Your task to perform on an android device: Add "sony triple a" to the cart on newegg.com Image 0: 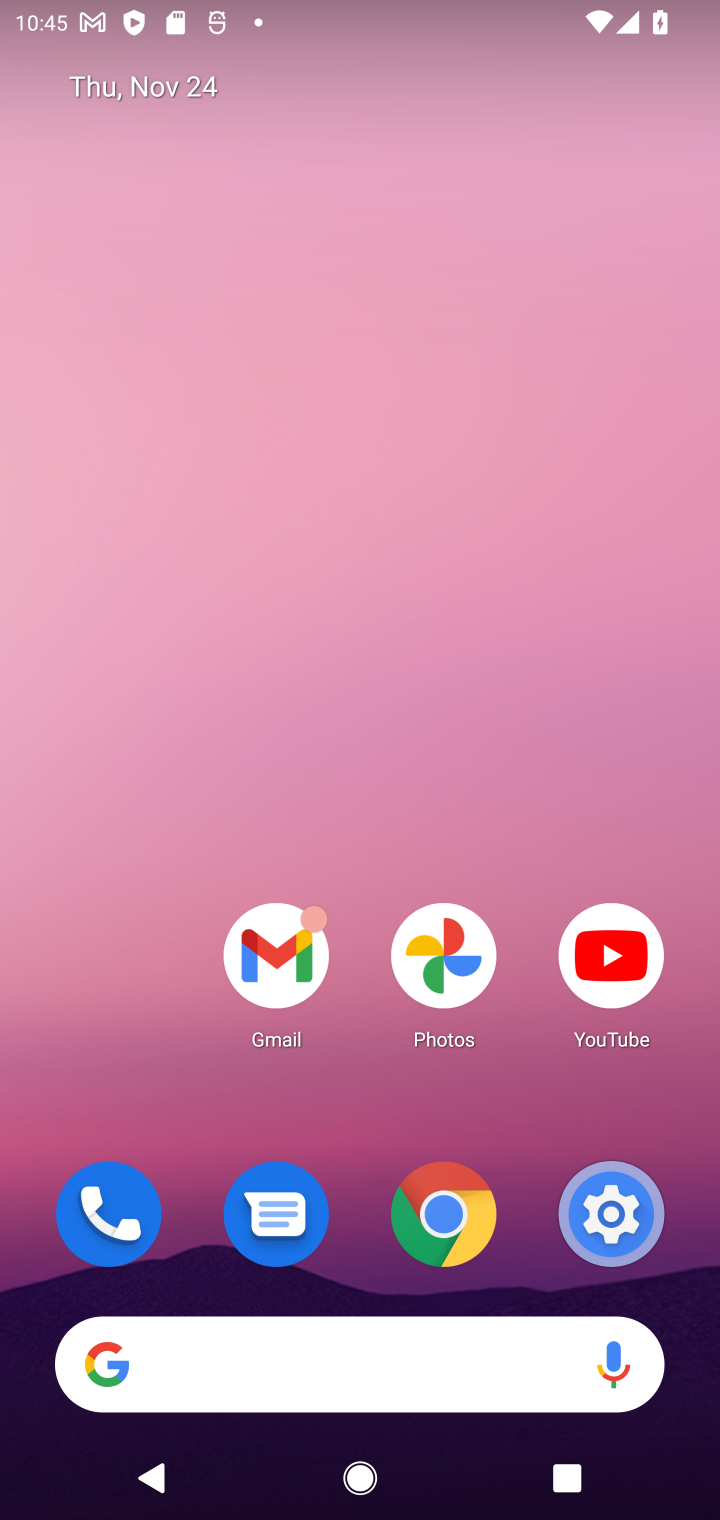
Step 0: click (433, 1359)
Your task to perform on an android device: Add "sony triple a" to the cart on newegg.com Image 1: 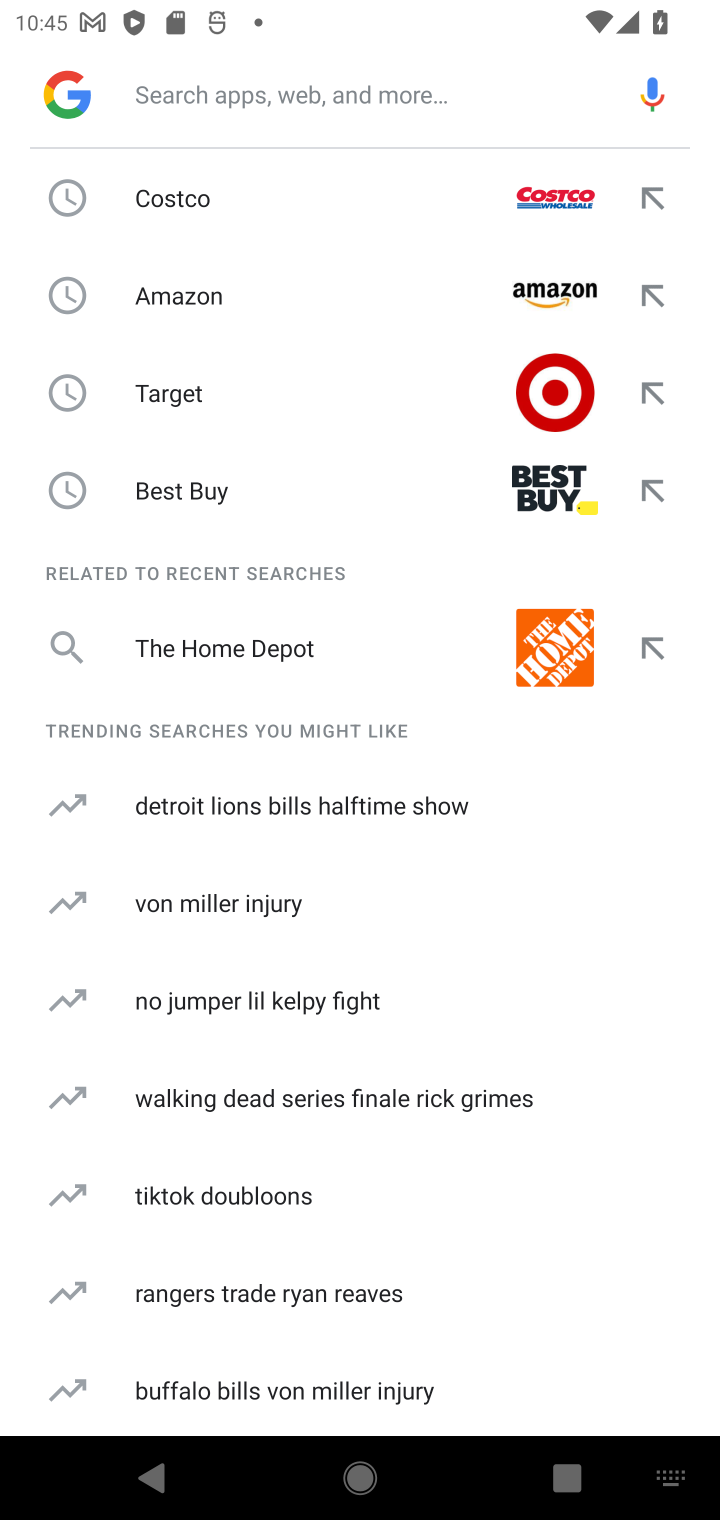
Step 1: type "newegg"
Your task to perform on an android device: Add "sony triple a" to the cart on newegg.com Image 2: 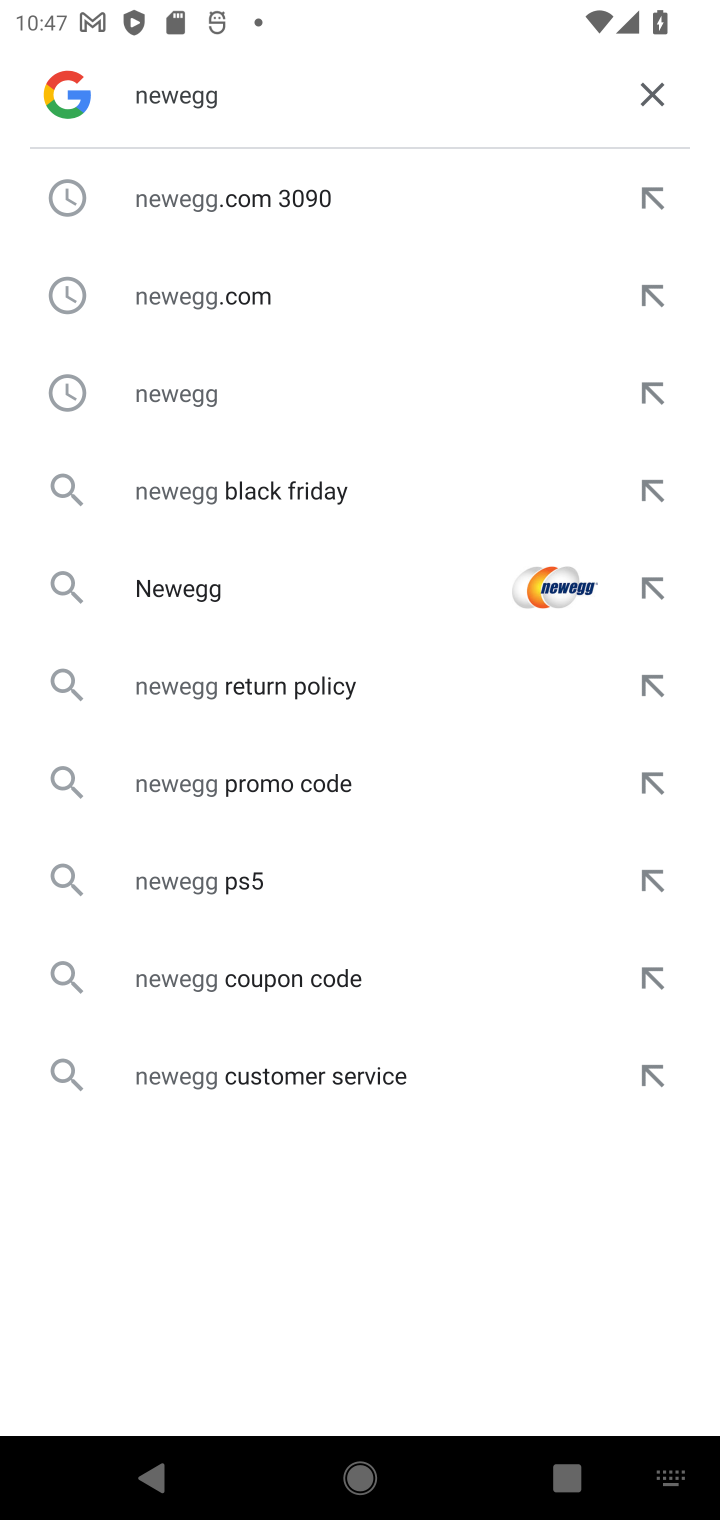
Step 2: click (279, 234)
Your task to perform on an android device: Add "sony triple a" to the cart on newegg.com Image 3: 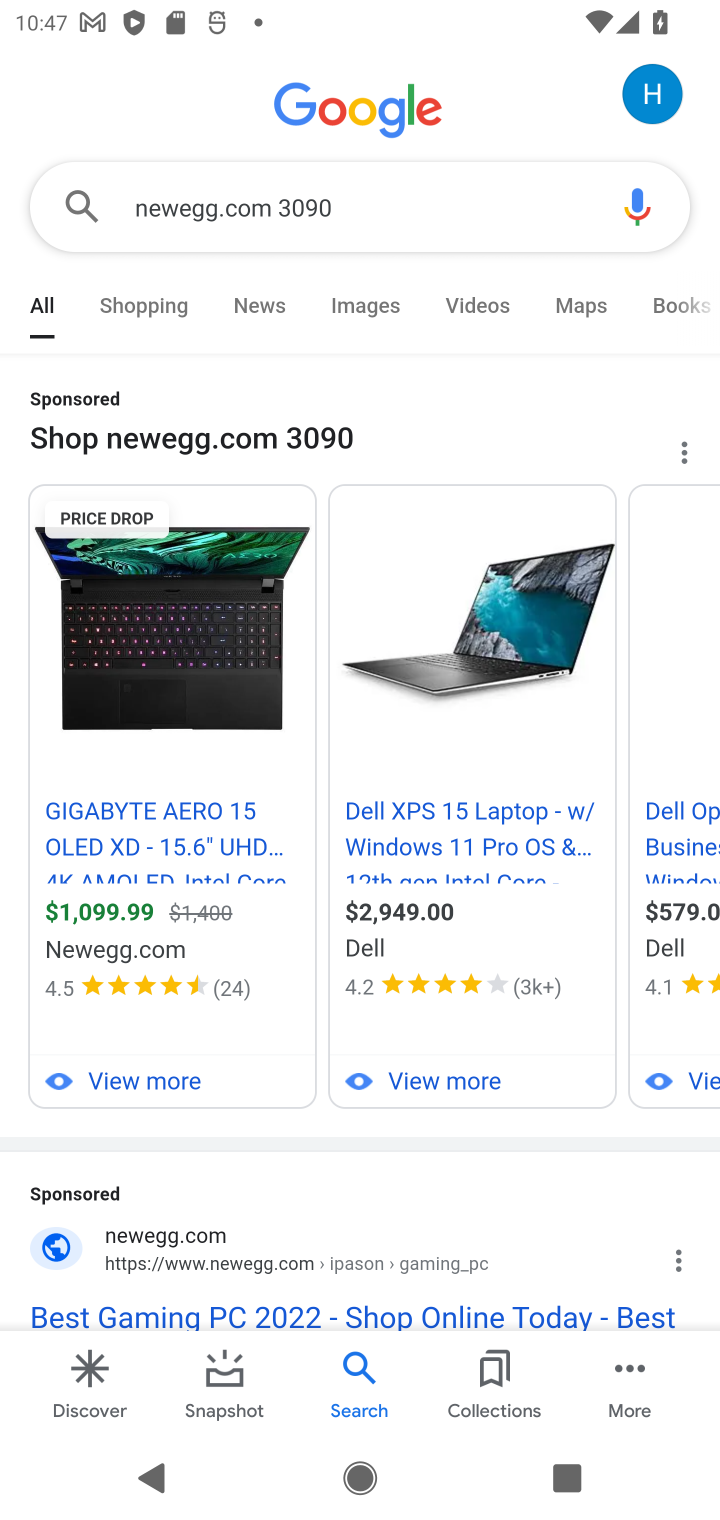
Step 3: click (207, 1303)
Your task to perform on an android device: Add "sony triple a" to the cart on newegg.com Image 4: 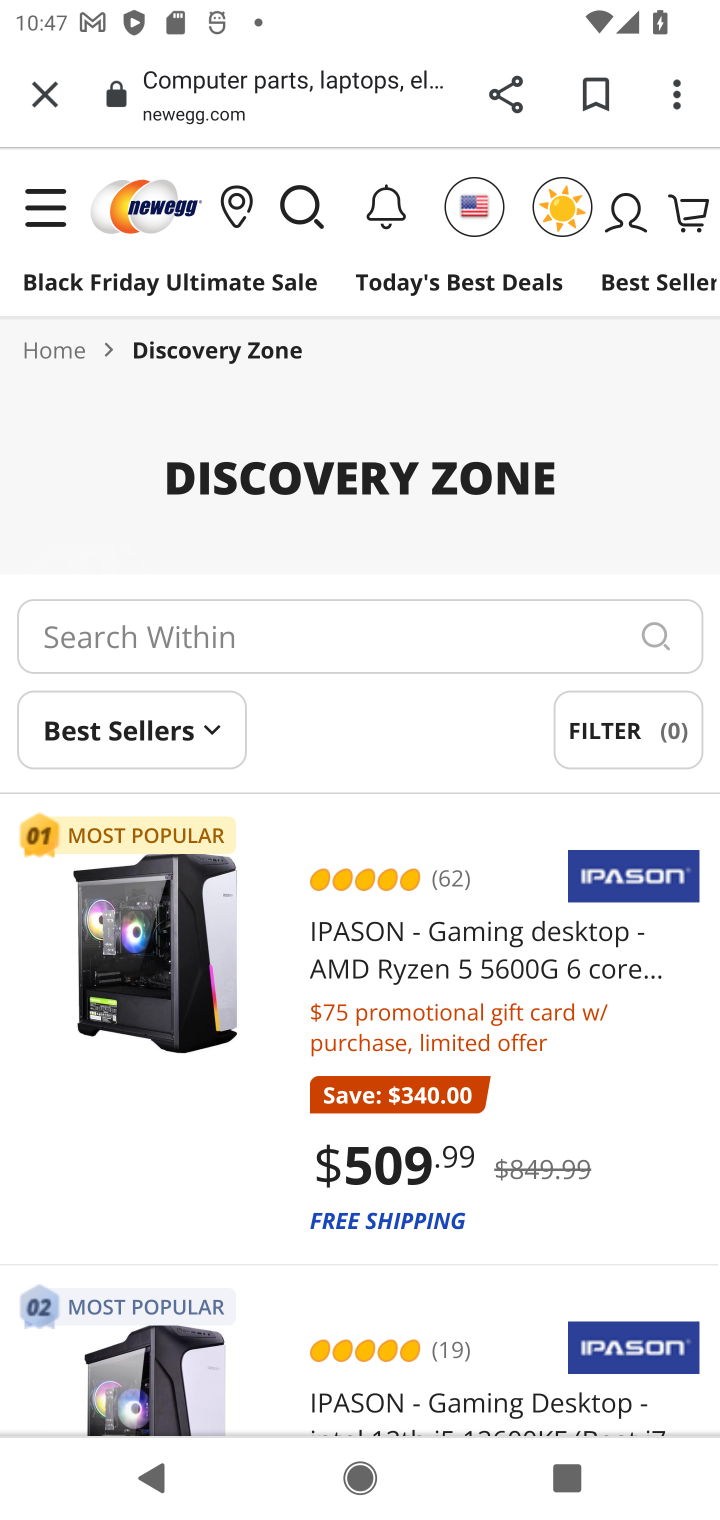
Step 4: click (420, 924)
Your task to perform on an android device: Add "sony triple a" to the cart on newegg.com Image 5: 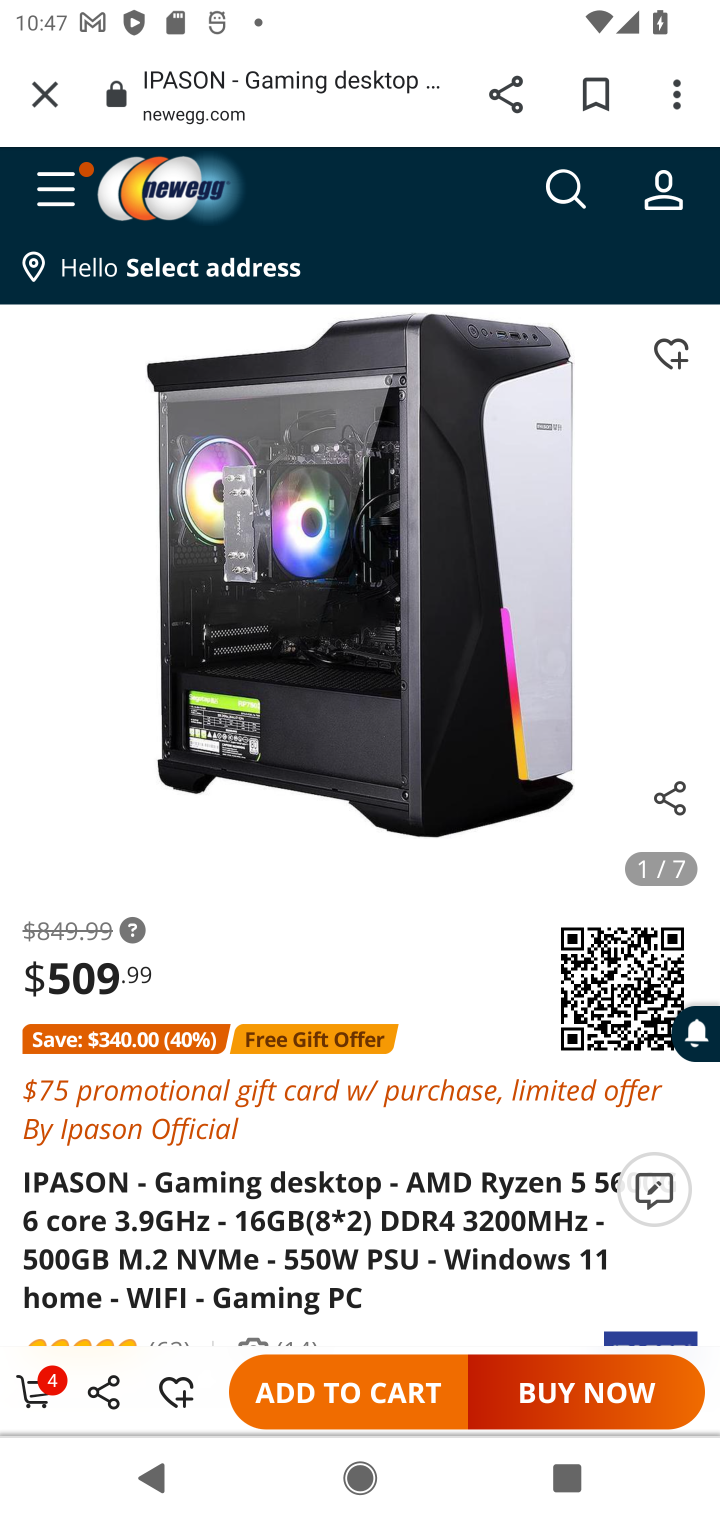
Step 5: click (356, 1417)
Your task to perform on an android device: Add "sony triple a" to the cart on newegg.com Image 6: 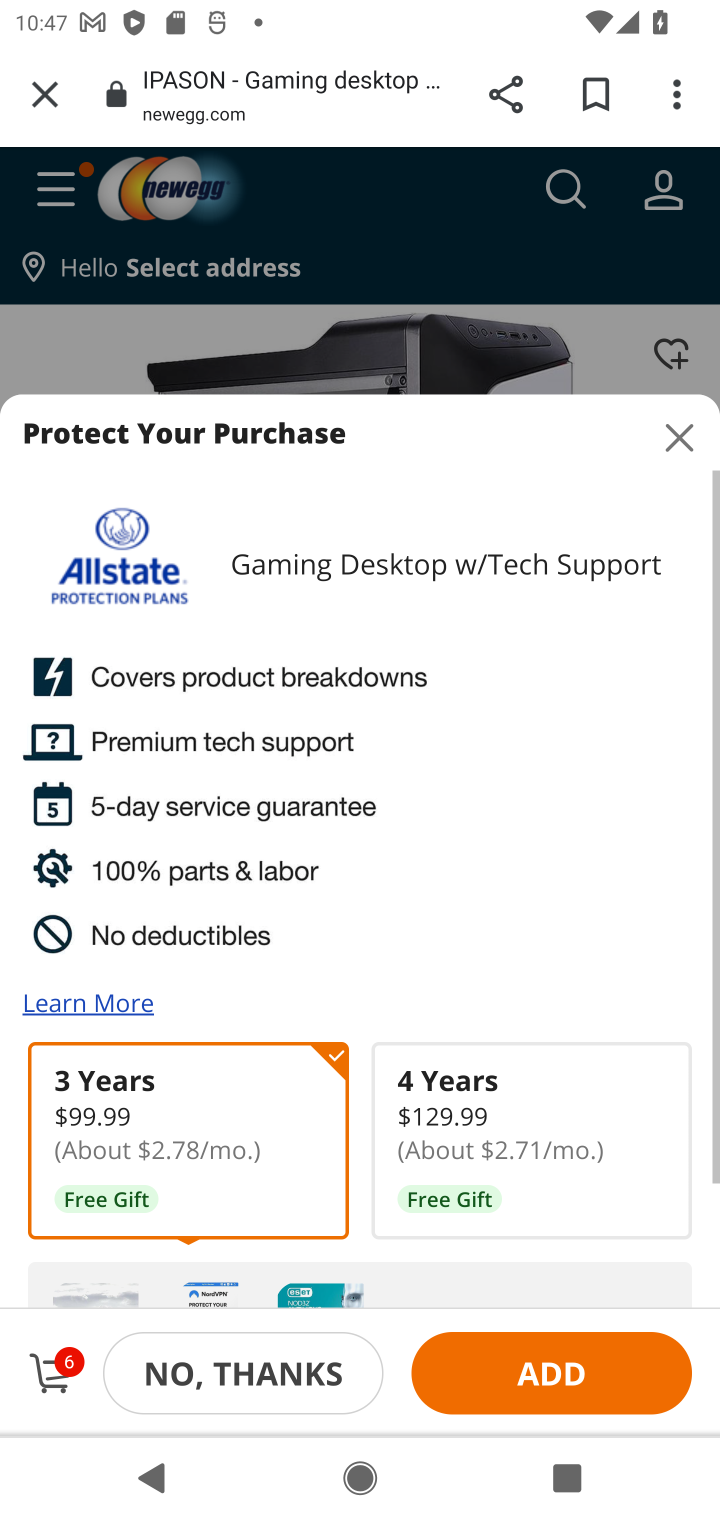
Step 6: click (481, 1386)
Your task to perform on an android device: Add "sony triple a" to the cart on newegg.com Image 7: 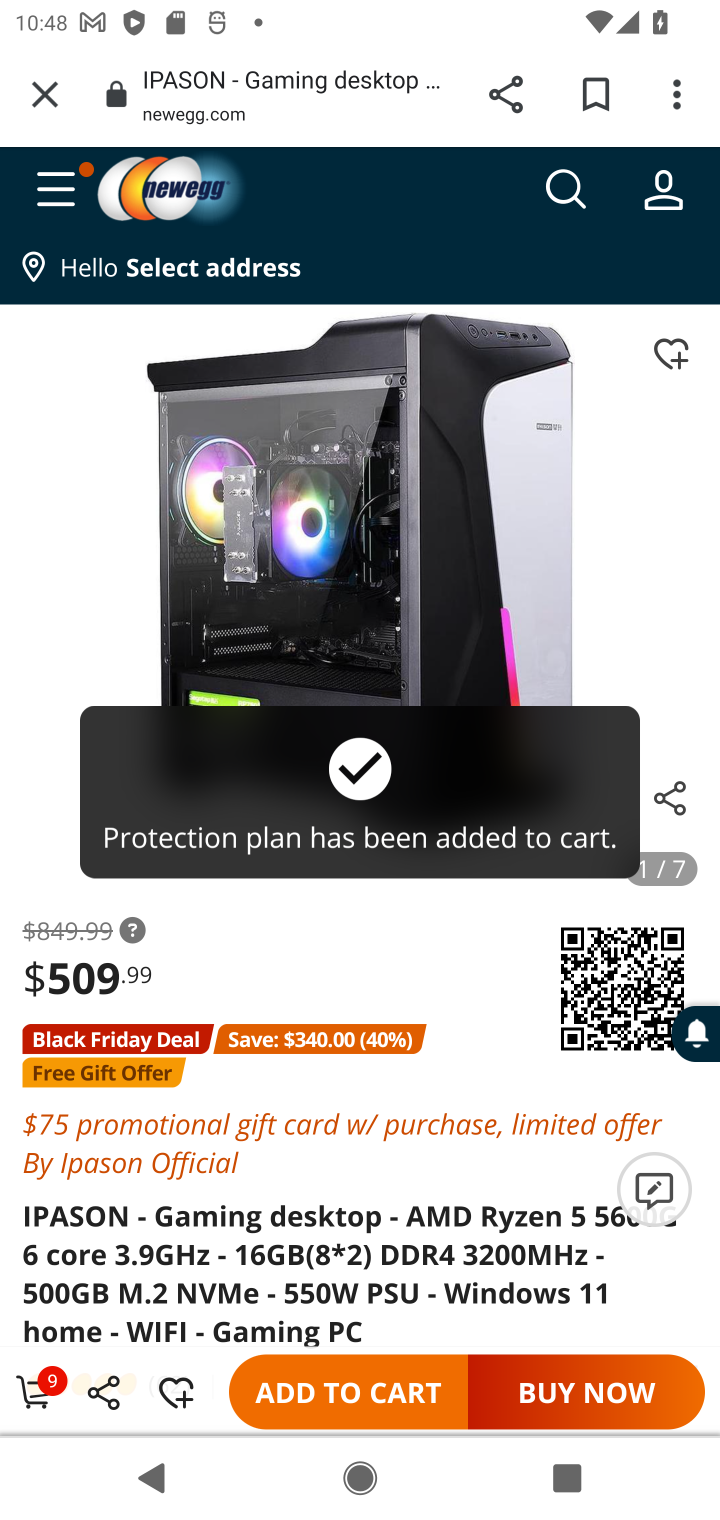
Step 7: task complete